Your task to perform on an android device: turn off data saver in the chrome app Image 0: 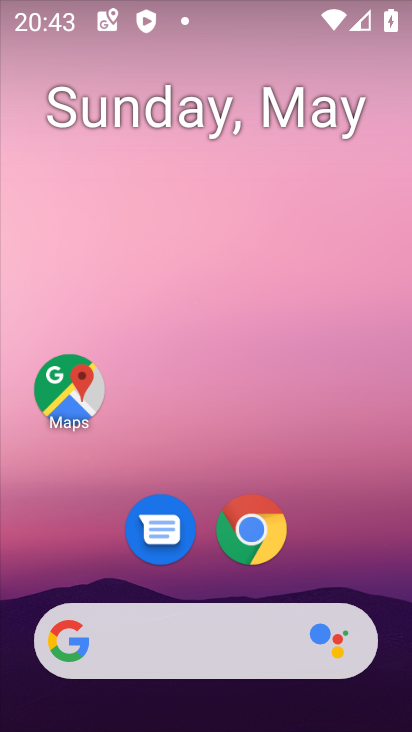
Step 0: click (249, 527)
Your task to perform on an android device: turn off data saver in the chrome app Image 1: 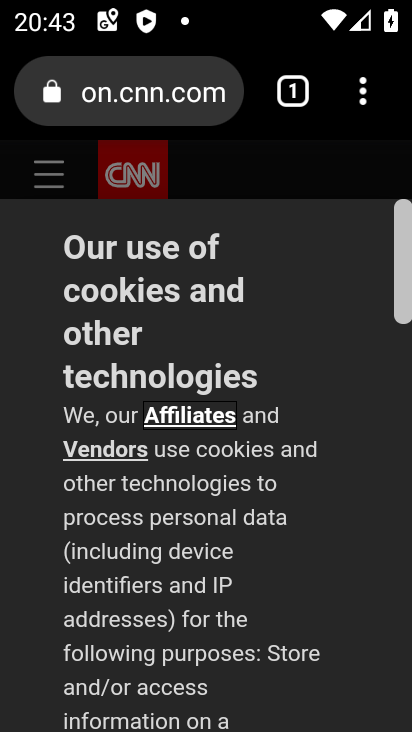
Step 1: click (371, 97)
Your task to perform on an android device: turn off data saver in the chrome app Image 2: 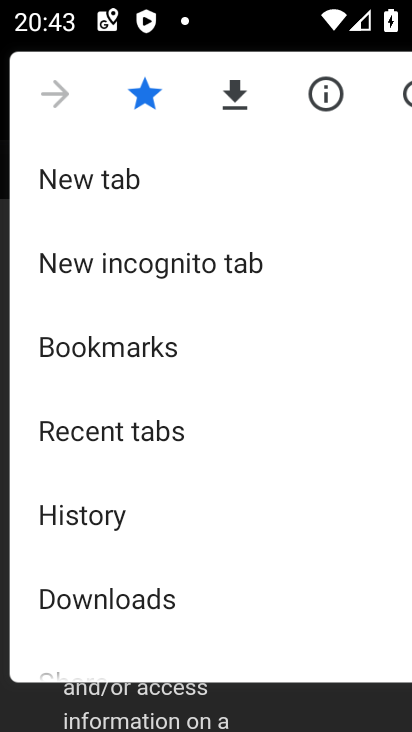
Step 2: drag from (193, 525) to (171, 157)
Your task to perform on an android device: turn off data saver in the chrome app Image 3: 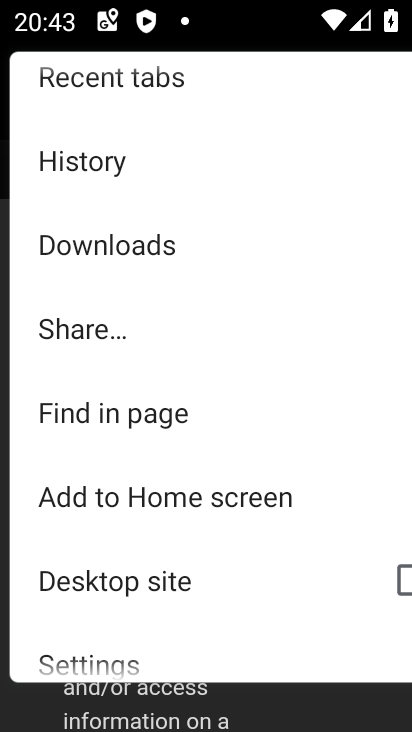
Step 3: drag from (205, 454) to (185, 132)
Your task to perform on an android device: turn off data saver in the chrome app Image 4: 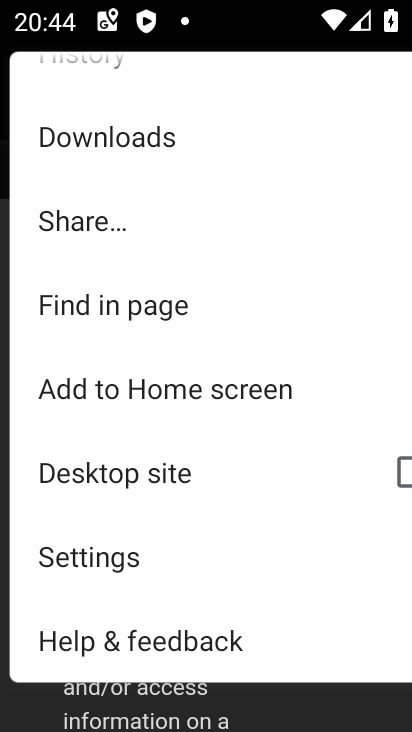
Step 4: click (121, 569)
Your task to perform on an android device: turn off data saver in the chrome app Image 5: 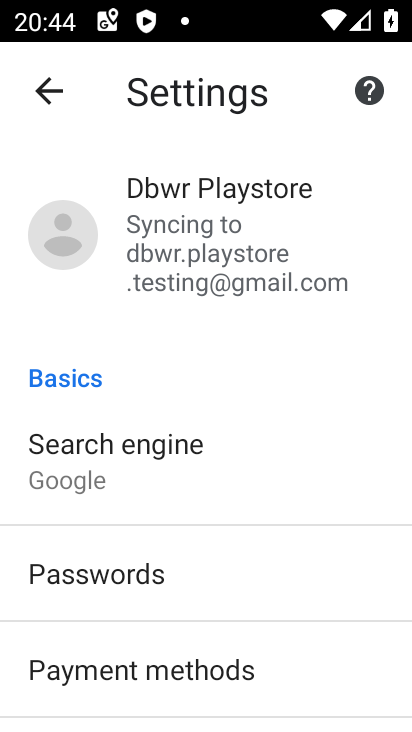
Step 5: drag from (215, 616) to (224, 109)
Your task to perform on an android device: turn off data saver in the chrome app Image 6: 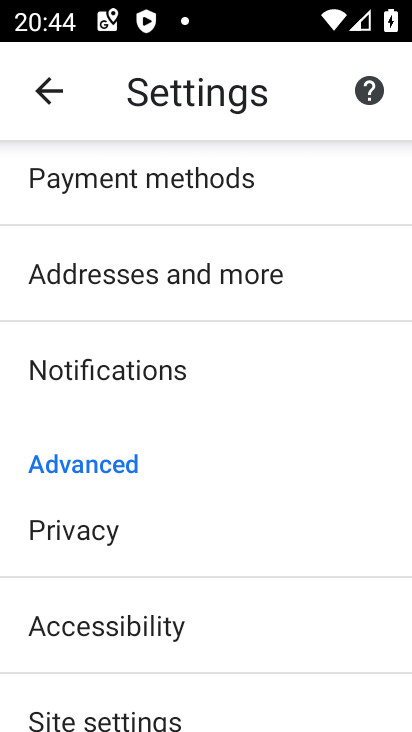
Step 6: drag from (235, 569) to (198, 105)
Your task to perform on an android device: turn off data saver in the chrome app Image 7: 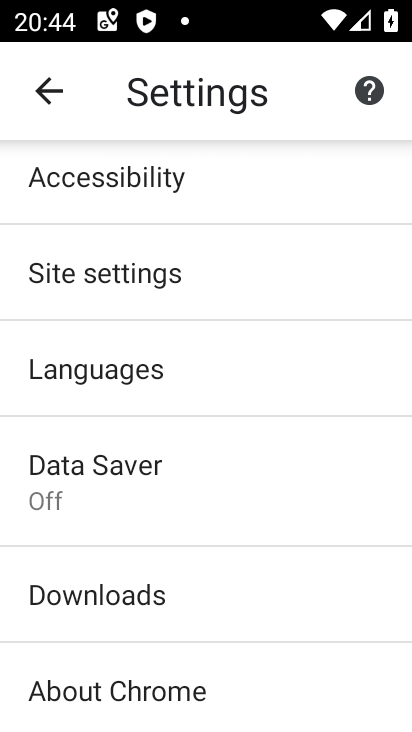
Step 7: click (130, 473)
Your task to perform on an android device: turn off data saver in the chrome app Image 8: 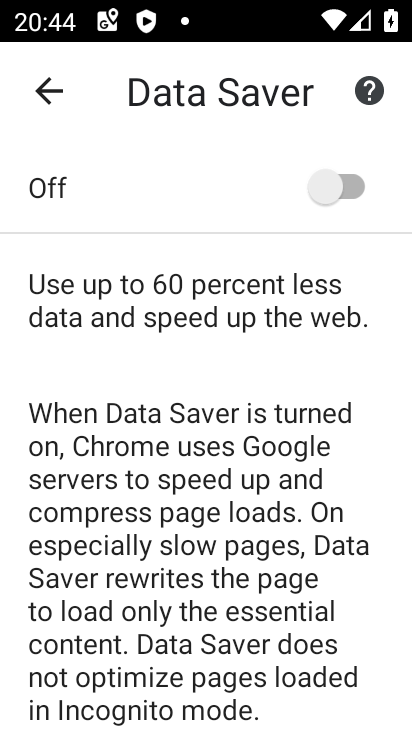
Step 8: task complete